Your task to perform on an android device: open wifi settings Image 0: 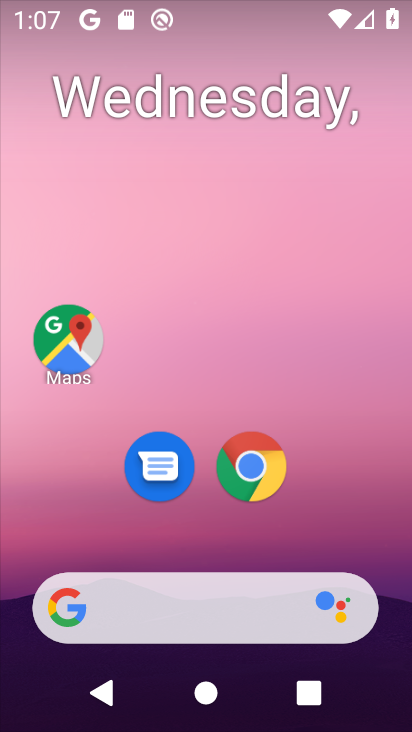
Step 0: drag from (322, 537) to (349, 130)
Your task to perform on an android device: open wifi settings Image 1: 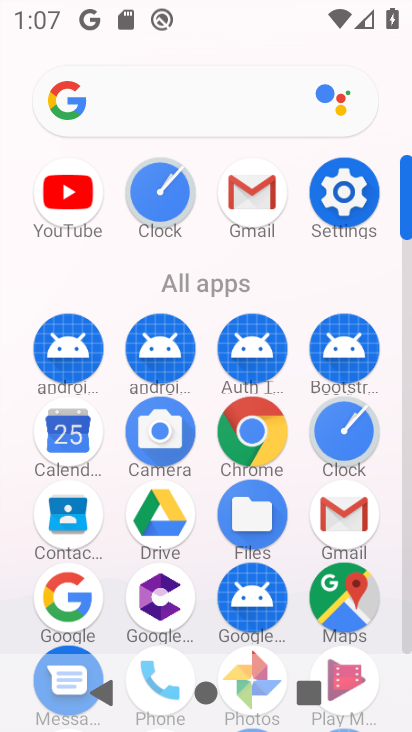
Step 1: click (372, 208)
Your task to perform on an android device: open wifi settings Image 2: 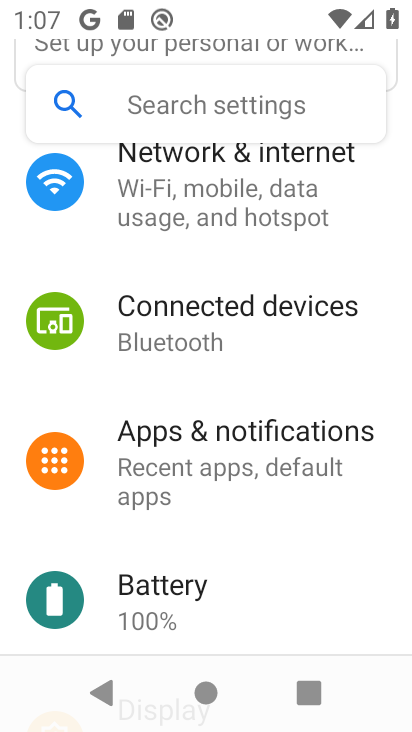
Step 2: drag from (257, 230) to (265, 535)
Your task to perform on an android device: open wifi settings Image 3: 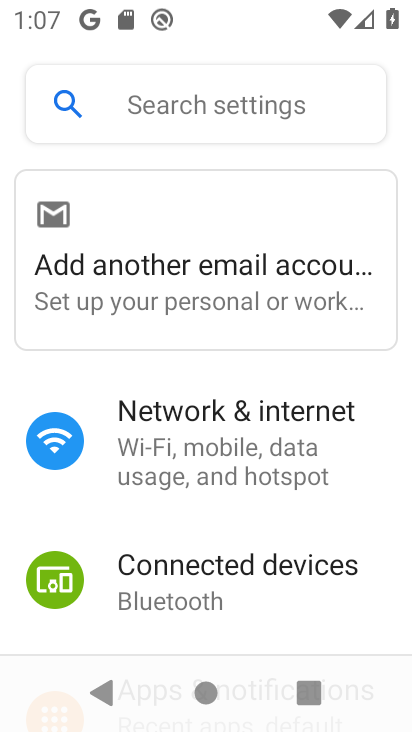
Step 3: click (282, 405)
Your task to perform on an android device: open wifi settings Image 4: 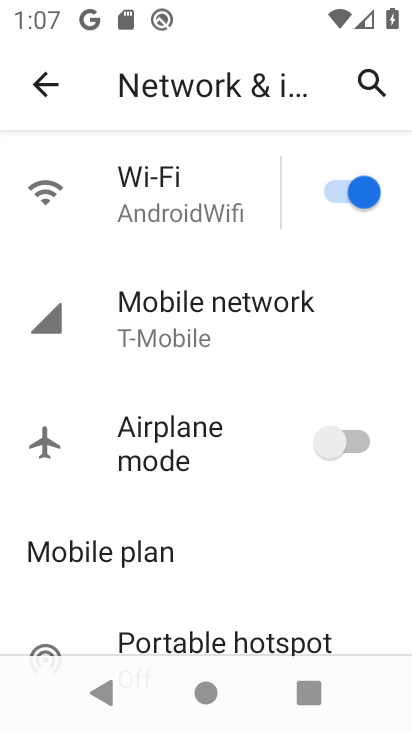
Step 4: task complete